Your task to perform on an android device: Clear all items from cart on walmart.com. Add macbook pro to the cart on walmart.com, then select checkout. Image 0: 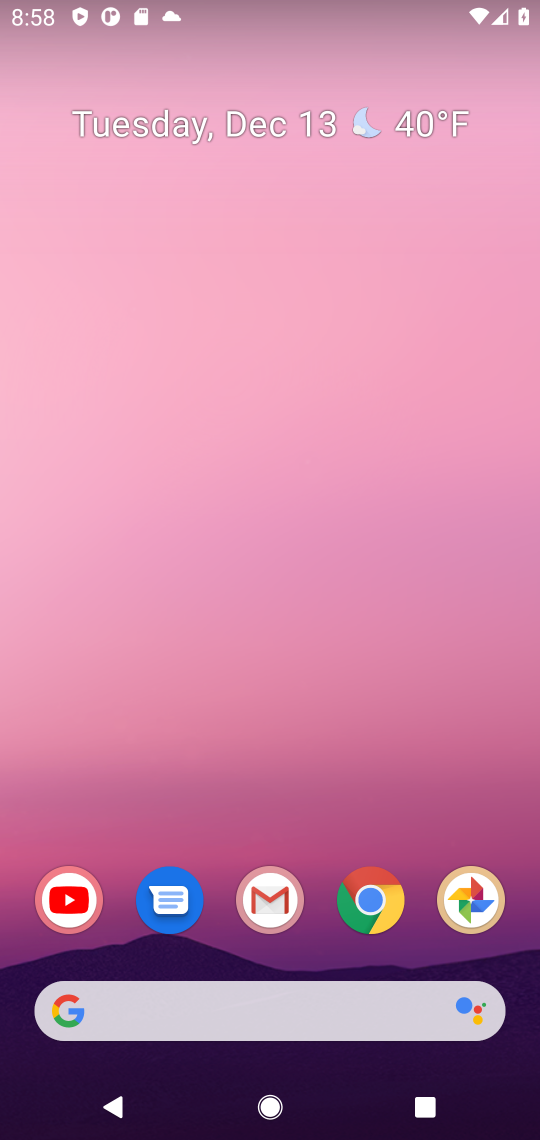
Step 0: click (371, 910)
Your task to perform on an android device: Clear all items from cart on walmart.com. Add macbook pro to the cart on walmart.com, then select checkout. Image 1: 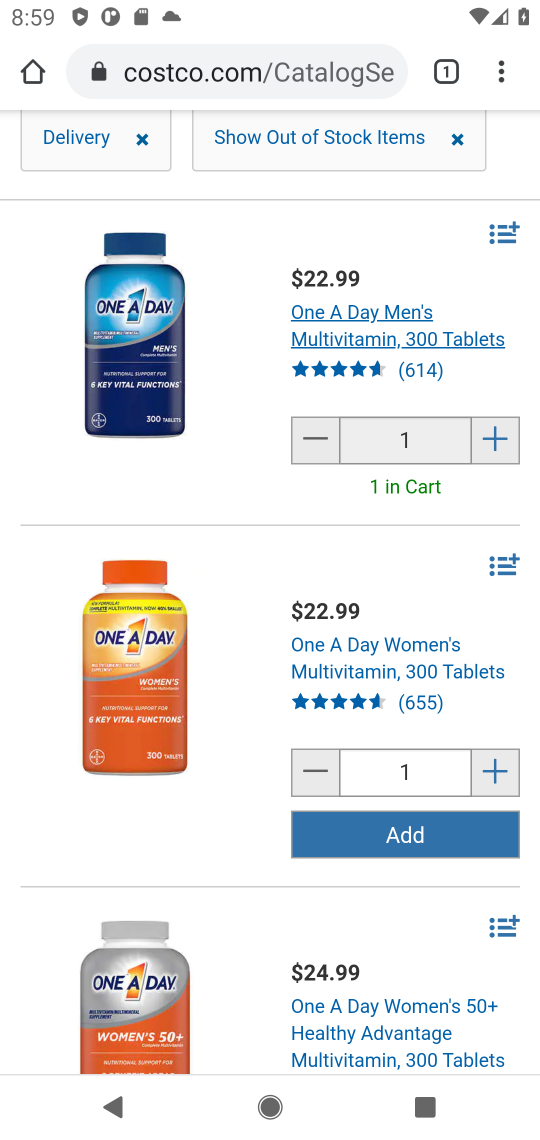
Step 1: task complete